Your task to perform on an android device: Open Google Maps and go to "Timeline" Image 0: 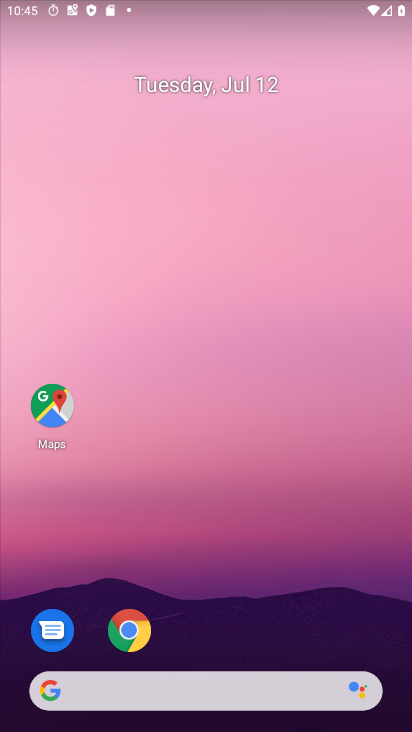
Step 0: click (46, 404)
Your task to perform on an android device: Open Google Maps and go to "Timeline" Image 1: 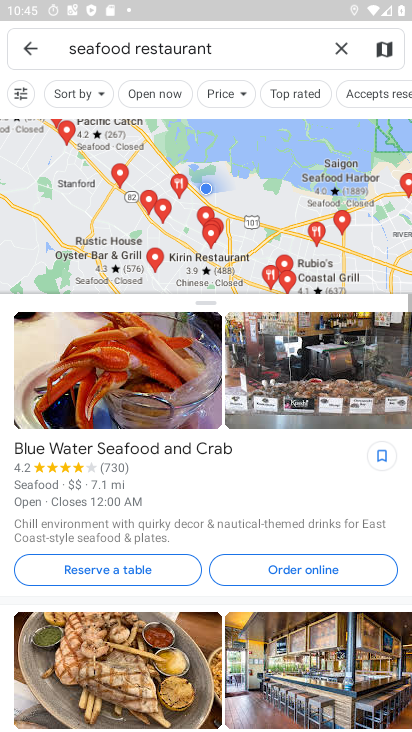
Step 1: click (337, 41)
Your task to perform on an android device: Open Google Maps and go to "Timeline" Image 2: 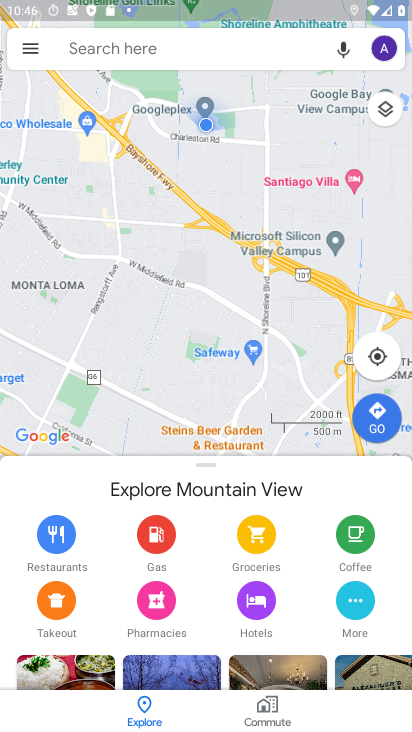
Step 2: click (30, 46)
Your task to perform on an android device: Open Google Maps and go to "Timeline" Image 3: 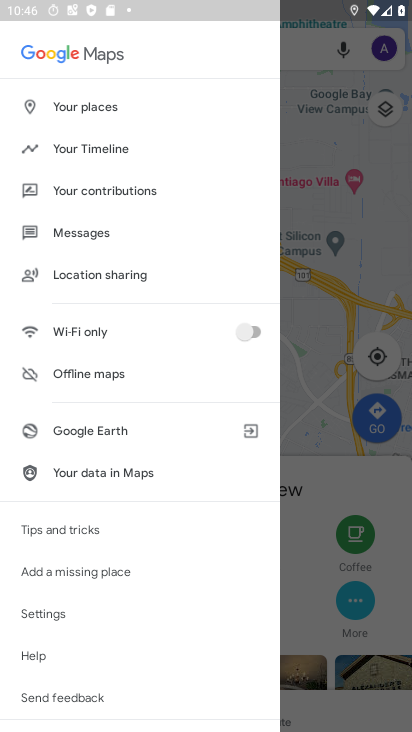
Step 3: click (64, 142)
Your task to perform on an android device: Open Google Maps and go to "Timeline" Image 4: 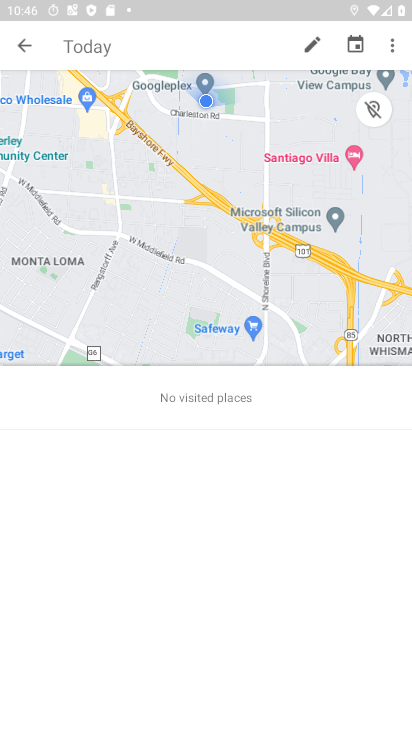
Step 4: task complete